Your task to perform on an android device: install app "File Manager" Image 0: 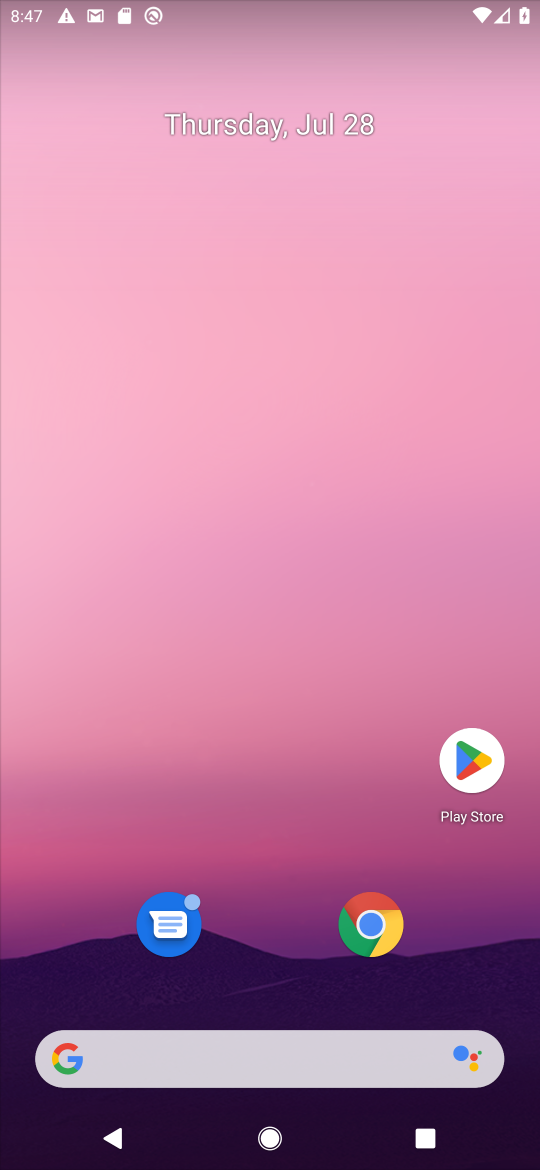
Step 0: press home button
Your task to perform on an android device: install app "File Manager" Image 1: 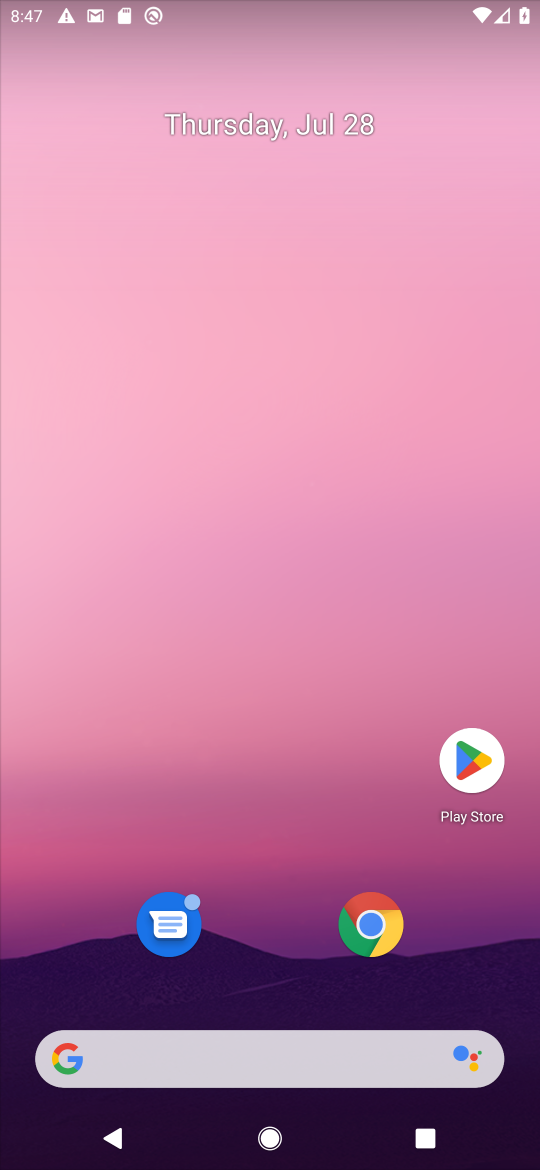
Step 1: click (481, 758)
Your task to perform on an android device: install app "File Manager" Image 2: 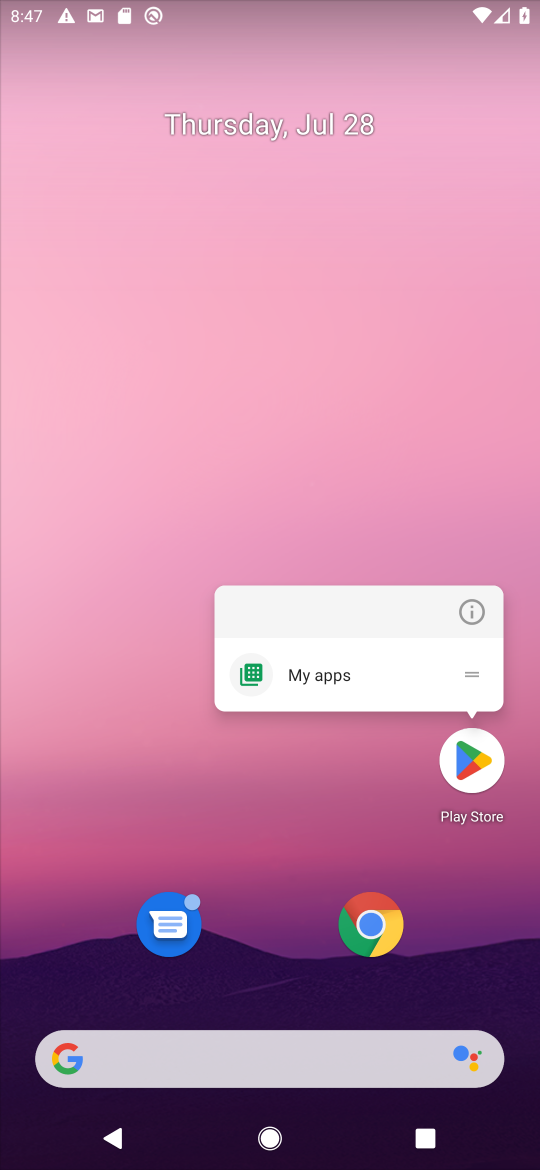
Step 2: click (481, 763)
Your task to perform on an android device: install app "File Manager" Image 3: 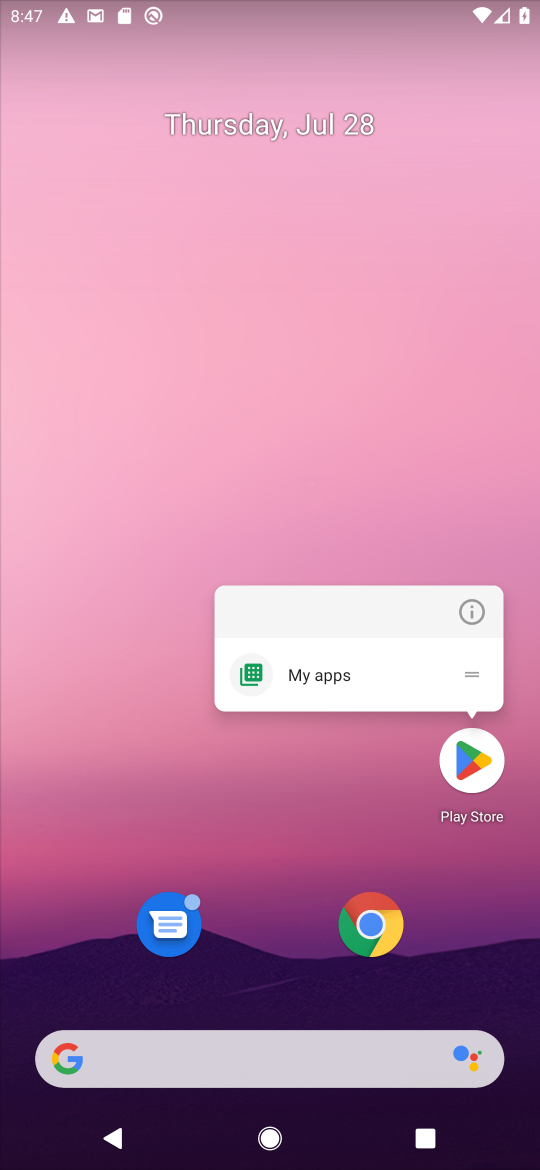
Step 3: click (481, 768)
Your task to perform on an android device: install app "File Manager" Image 4: 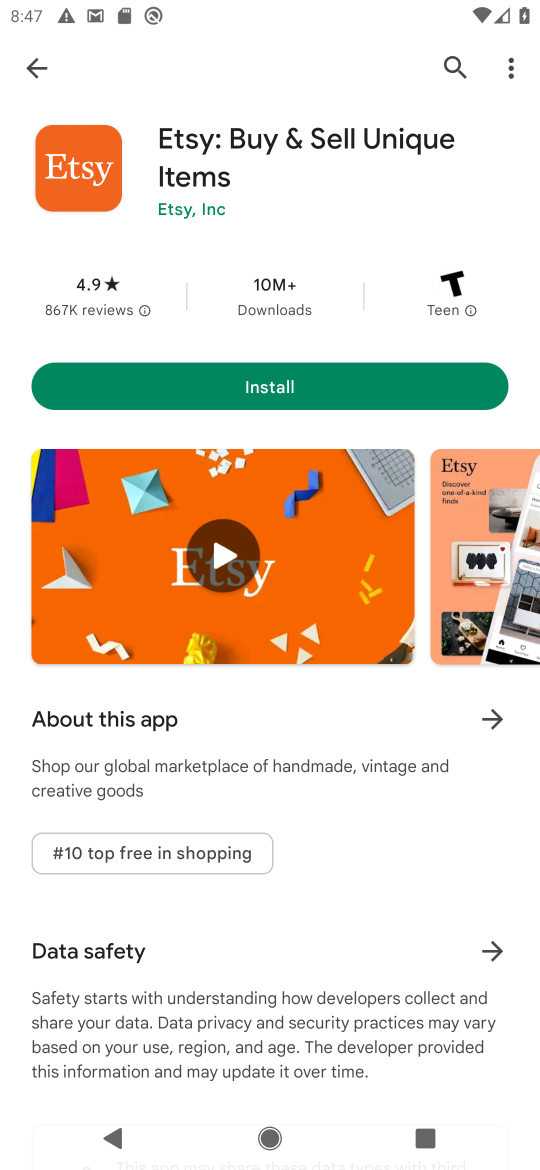
Step 4: click (449, 65)
Your task to perform on an android device: install app "File Manager" Image 5: 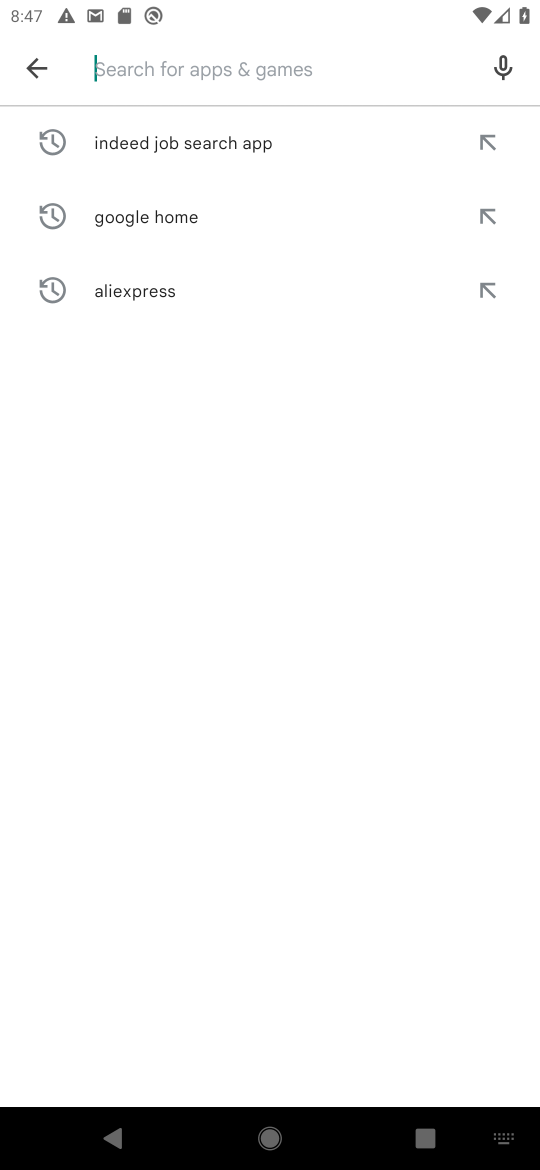
Step 5: type "File Manager"
Your task to perform on an android device: install app "File Manager" Image 6: 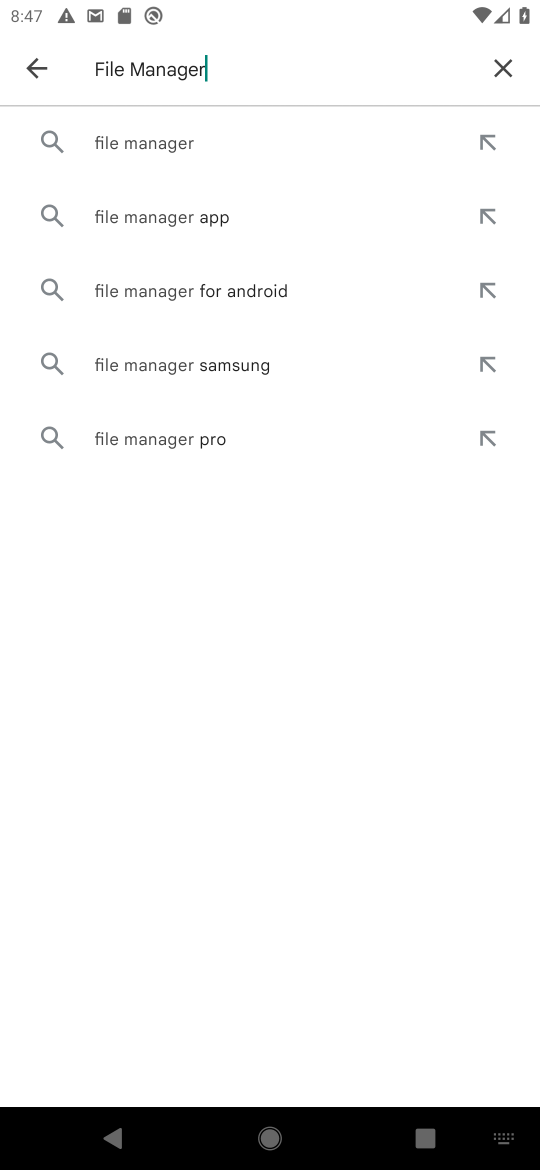
Step 6: click (168, 145)
Your task to perform on an android device: install app "File Manager" Image 7: 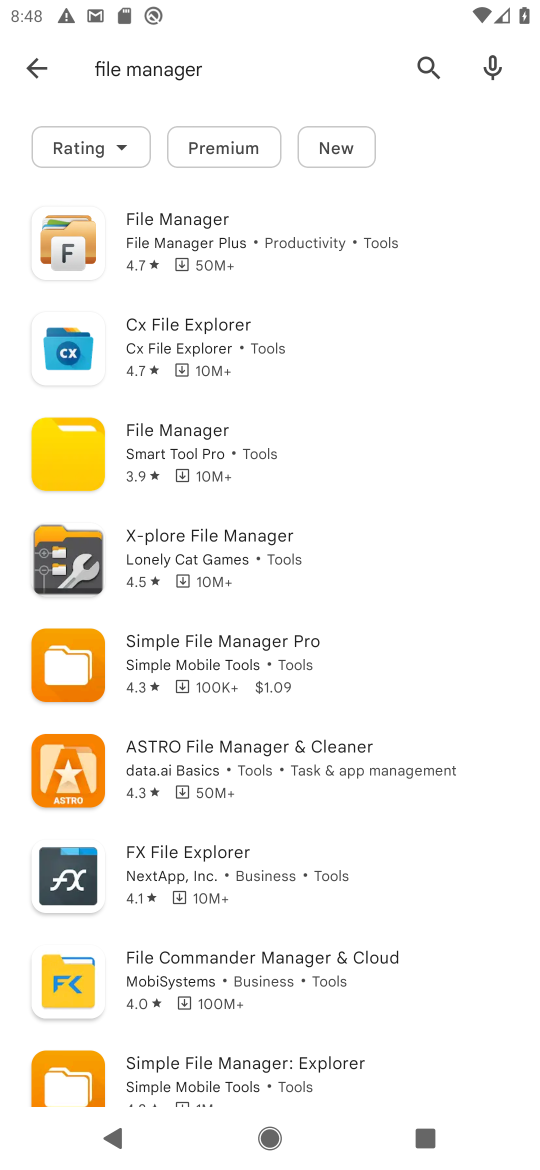
Step 7: click (225, 246)
Your task to perform on an android device: install app "File Manager" Image 8: 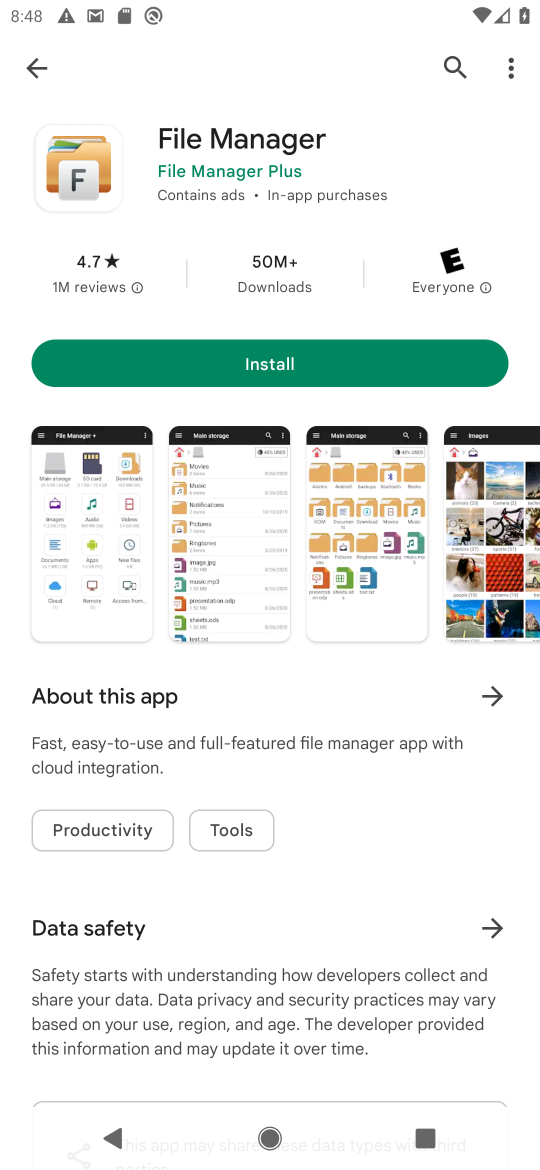
Step 8: click (271, 353)
Your task to perform on an android device: install app "File Manager" Image 9: 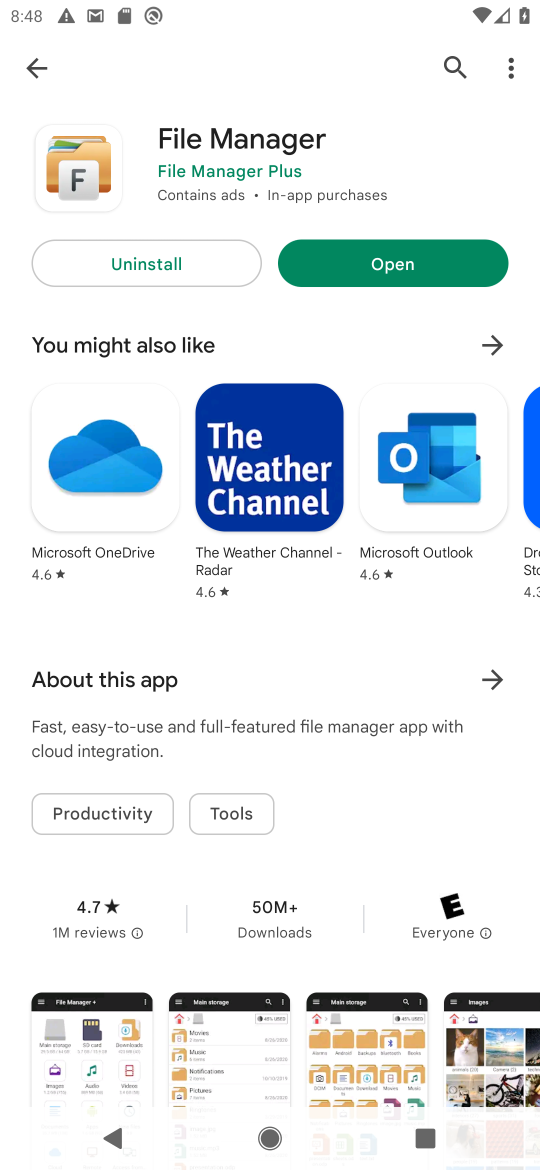
Step 9: task complete